Your task to perform on an android device: Open network settings Image 0: 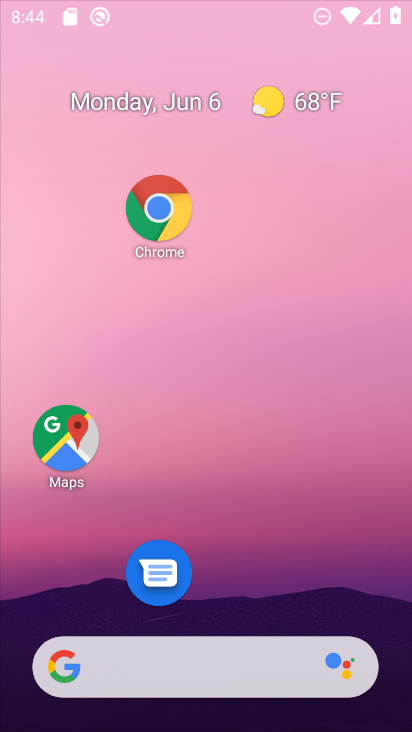
Step 0: drag from (221, 309) to (190, 91)
Your task to perform on an android device: Open network settings Image 1: 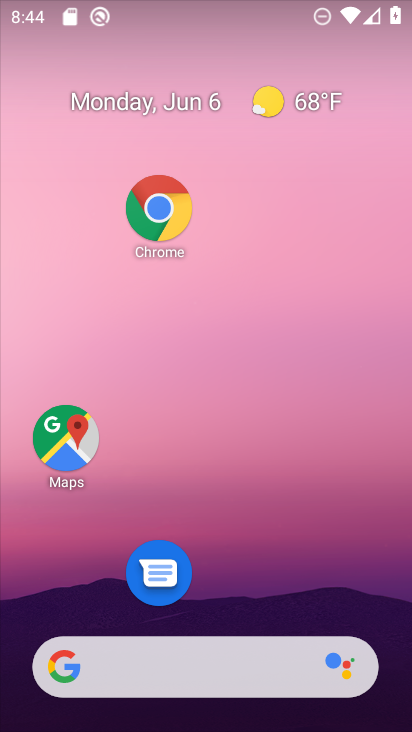
Step 1: drag from (258, 603) to (189, 129)
Your task to perform on an android device: Open network settings Image 2: 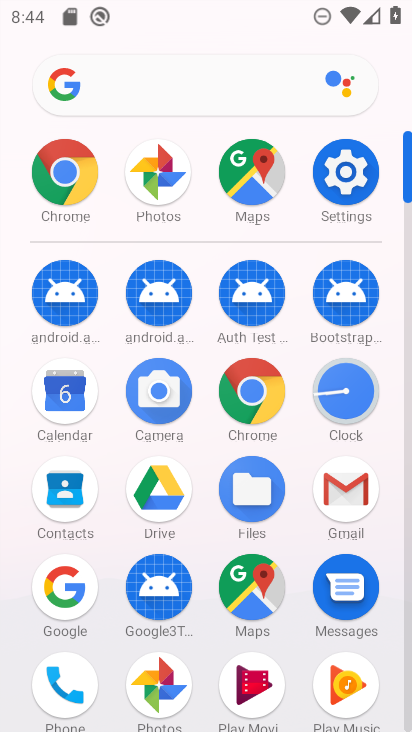
Step 2: click (71, 168)
Your task to perform on an android device: Open network settings Image 3: 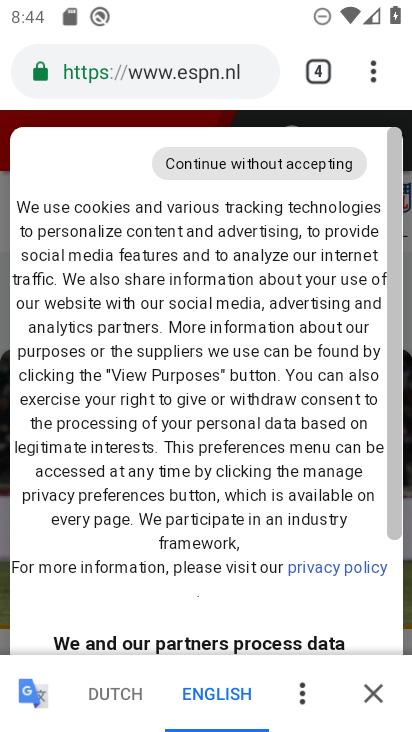
Step 3: press back button
Your task to perform on an android device: Open network settings Image 4: 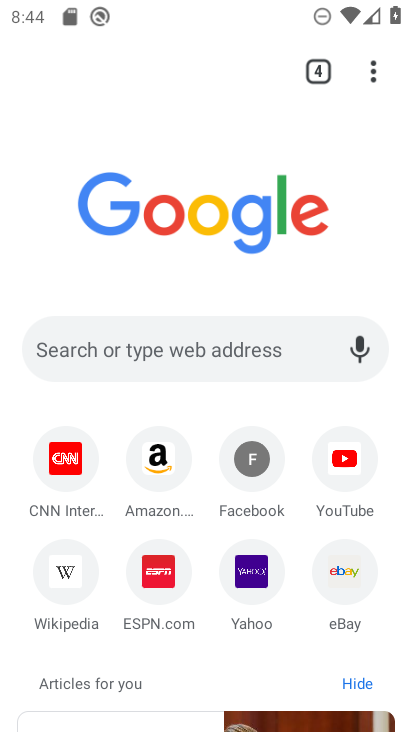
Step 4: press home button
Your task to perform on an android device: Open network settings Image 5: 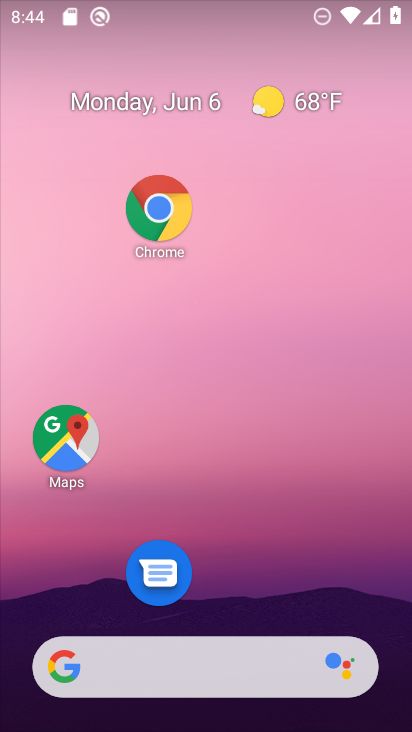
Step 5: drag from (238, 688) to (173, 64)
Your task to perform on an android device: Open network settings Image 6: 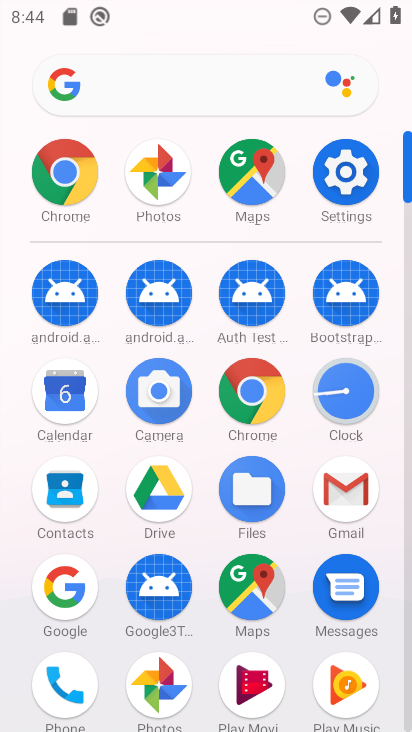
Step 6: click (328, 171)
Your task to perform on an android device: Open network settings Image 7: 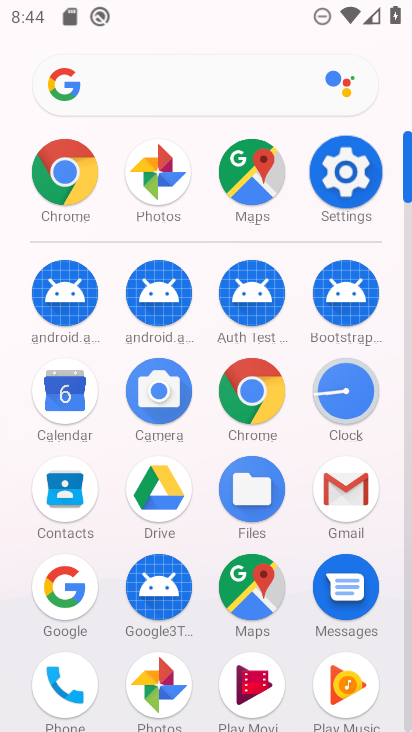
Step 7: click (334, 167)
Your task to perform on an android device: Open network settings Image 8: 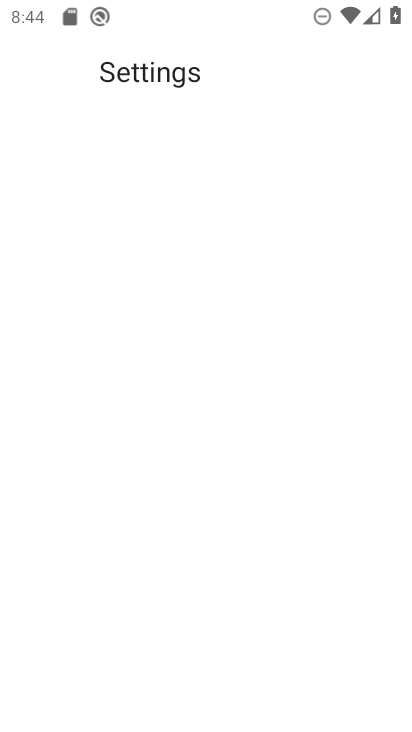
Step 8: click (335, 167)
Your task to perform on an android device: Open network settings Image 9: 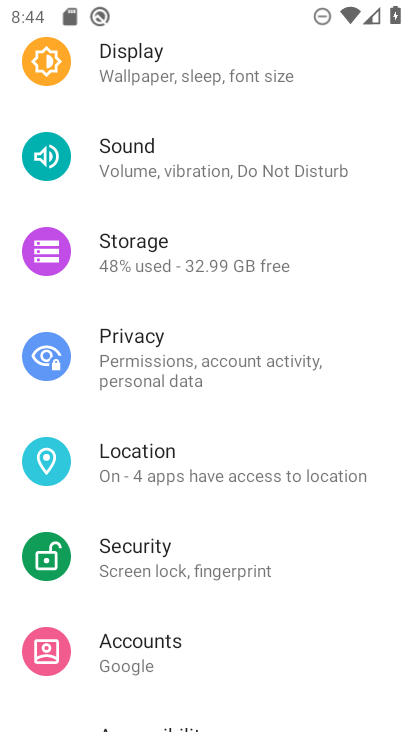
Step 9: click (336, 168)
Your task to perform on an android device: Open network settings Image 10: 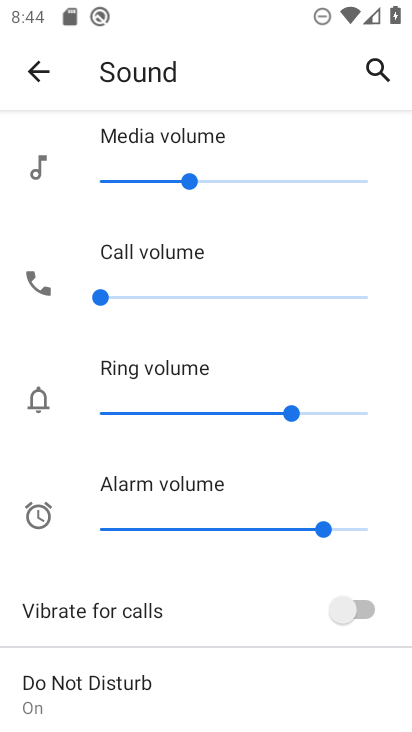
Step 10: click (51, 76)
Your task to perform on an android device: Open network settings Image 11: 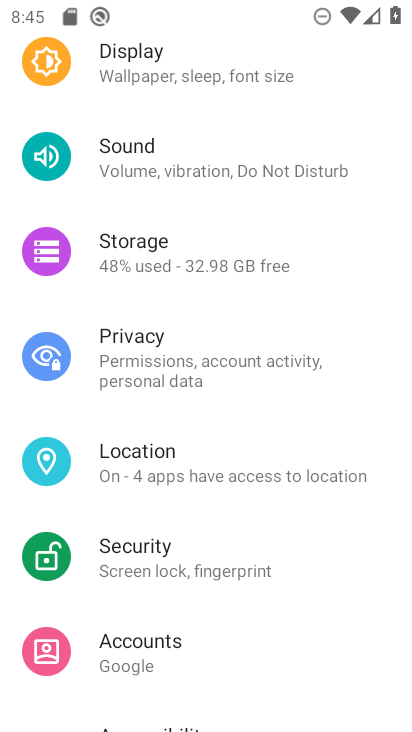
Step 11: drag from (144, 131) to (203, 486)
Your task to perform on an android device: Open network settings Image 12: 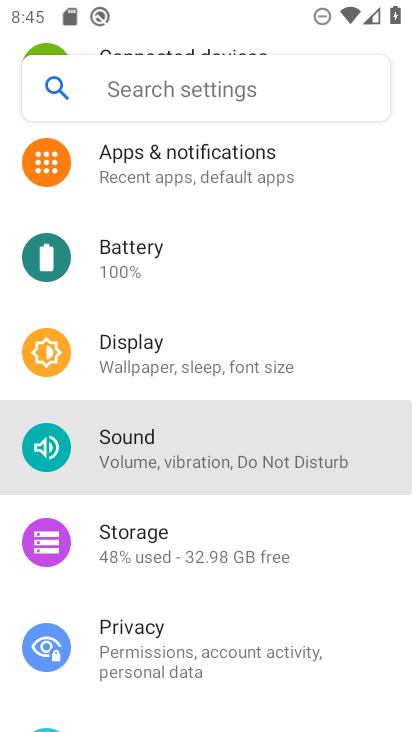
Step 12: drag from (249, 184) to (262, 541)
Your task to perform on an android device: Open network settings Image 13: 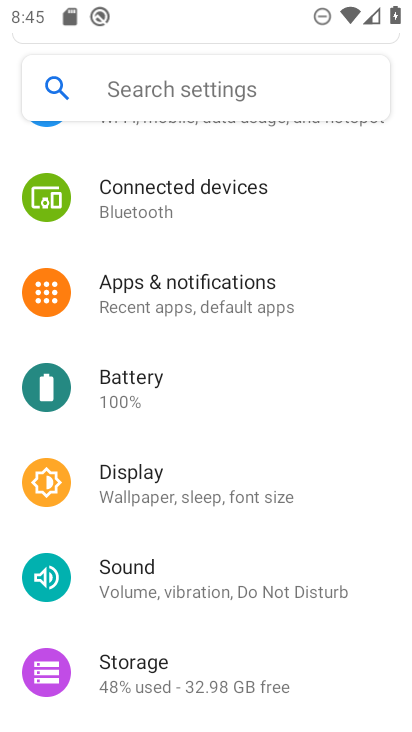
Step 13: drag from (181, 223) to (206, 584)
Your task to perform on an android device: Open network settings Image 14: 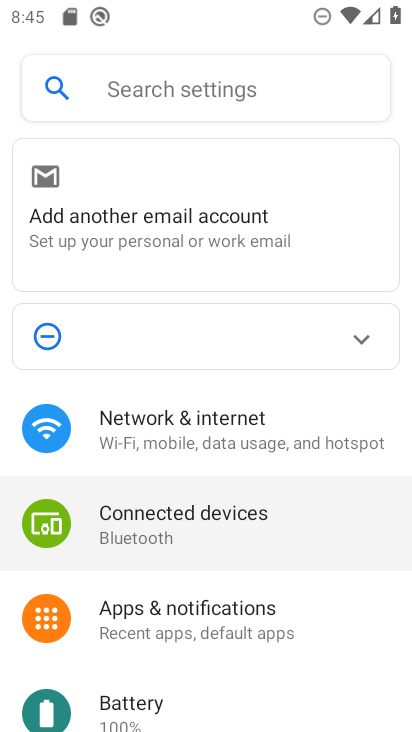
Step 14: drag from (188, 272) to (247, 560)
Your task to perform on an android device: Open network settings Image 15: 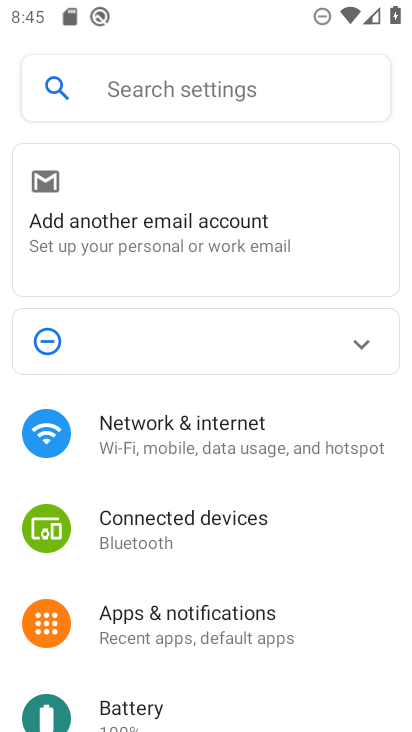
Step 15: click (238, 443)
Your task to perform on an android device: Open network settings Image 16: 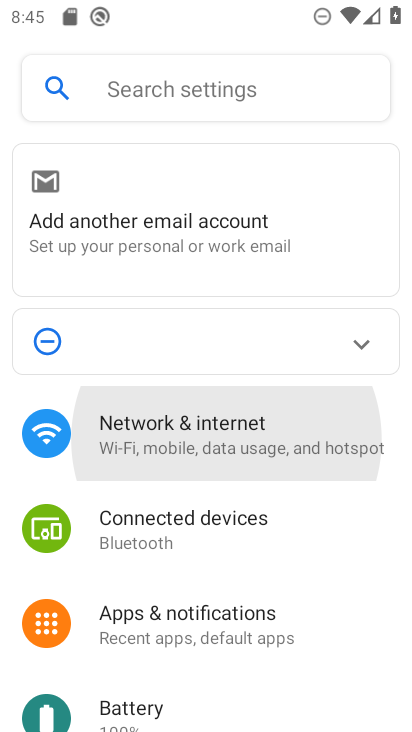
Step 16: click (238, 443)
Your task to perform on an android device: Open network settings Image 17: 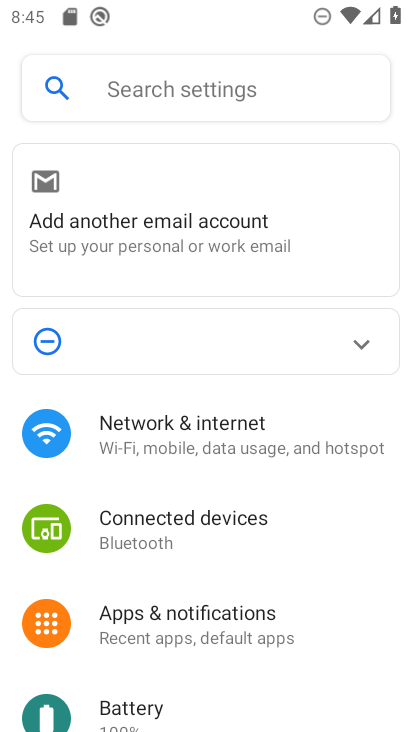
Step 17: click (244, 441)
Your task to perform on an android device: Open network settings Image 18: 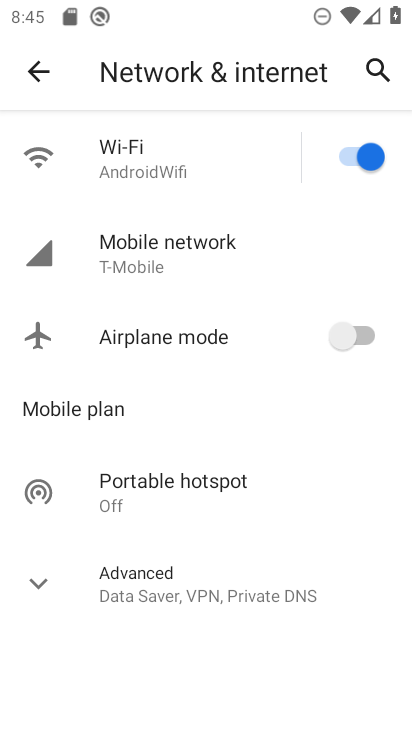
Step 18: click (159, 254)
Your task to perform on an android device: Open network settings Image 19: 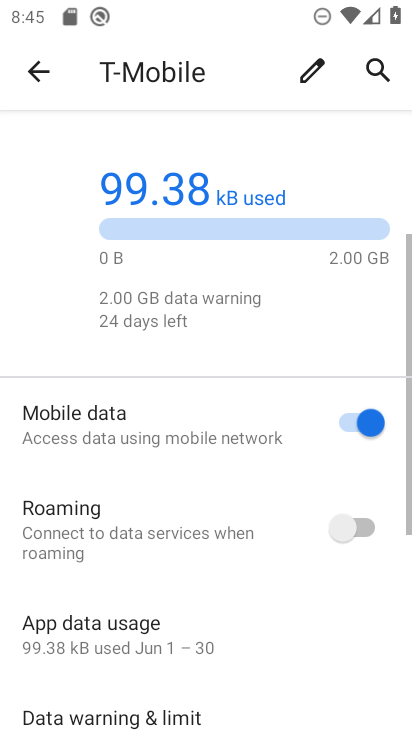
Step 19: click (44, 71)
Your task to perform on an android device: Open network settings Image 20: 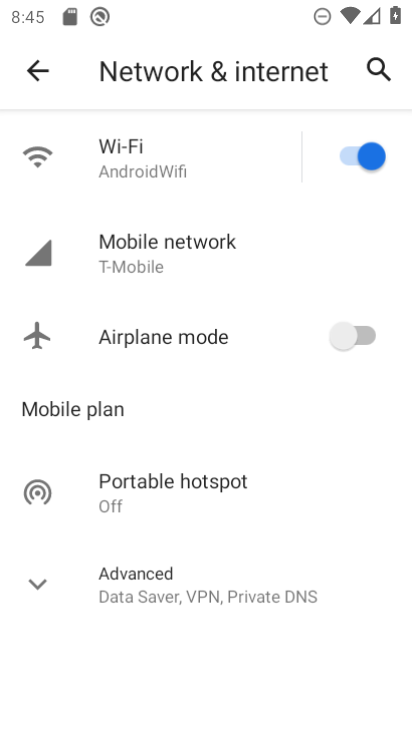
Step 20: task complete